Your task to perform on an android device: Go to accessibility settings Image 0: 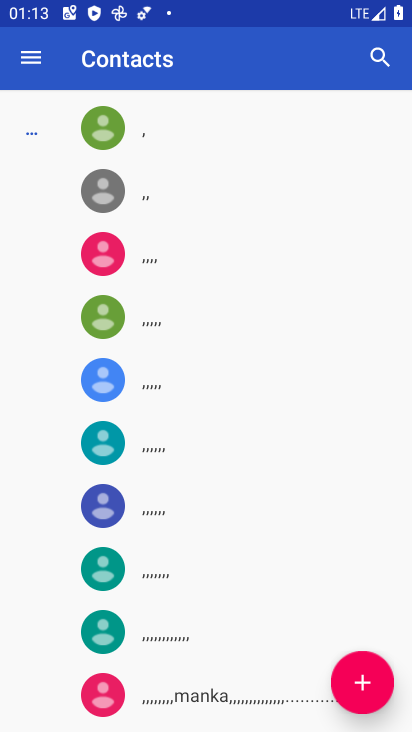
Step 0: press home button
Your task to perform on an android device: Go to accessibility settings Image 1: 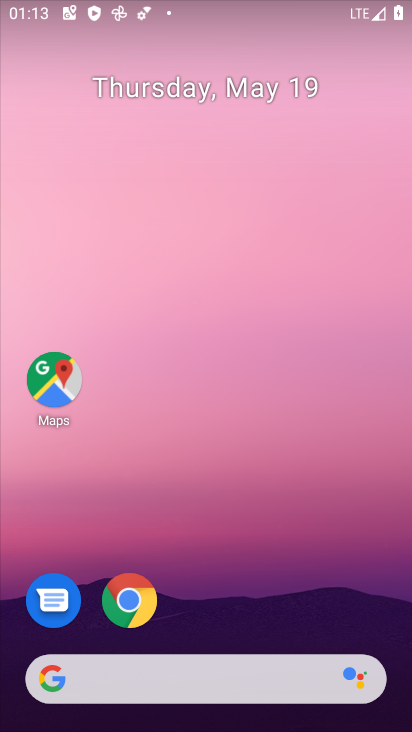
Step 1: drag from (219, 498) to (327, 72)
Your task to perform on an android device: Go to accessibility settings Image 2: 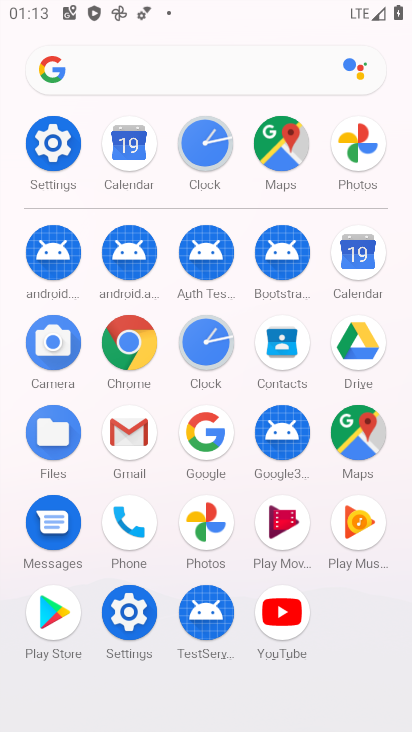
Step 2: click (50, 135)
Your task to perform on an android device: Go to accessibility settings Image 3: 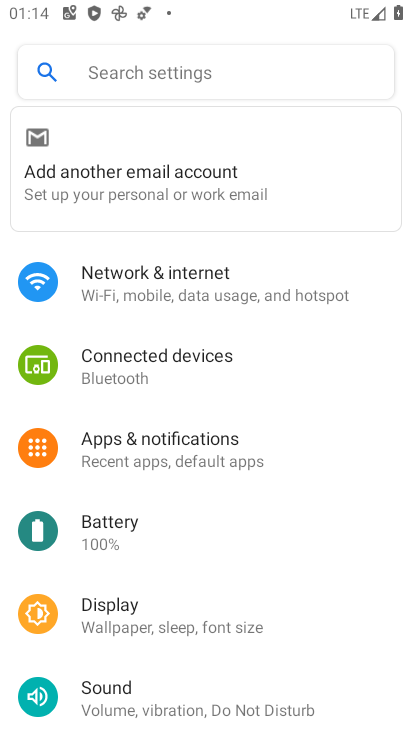
Step 3: drag from (275, 629) to (235, 264)
Your task to perform on an android device: Go to accessibility settings Image 4: 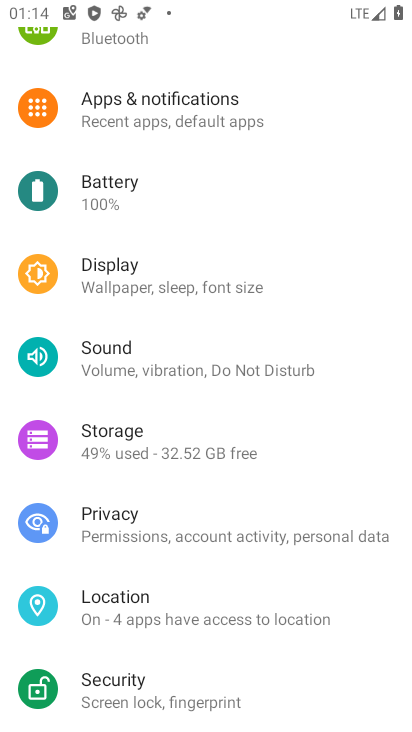
Step 4: drag from (197, 541) to (170, 256)
Your task to perform on an android device: Go to accessibility settings Image 5: 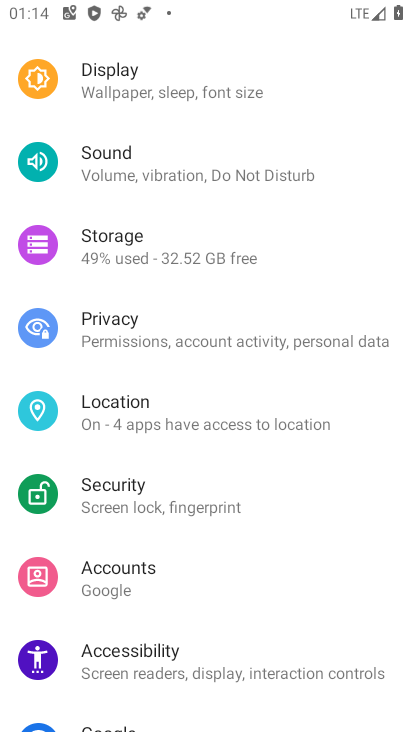
Step 5: click (152, 655)
Your task to perform on an android device: Go to accessibility settings Image 6: 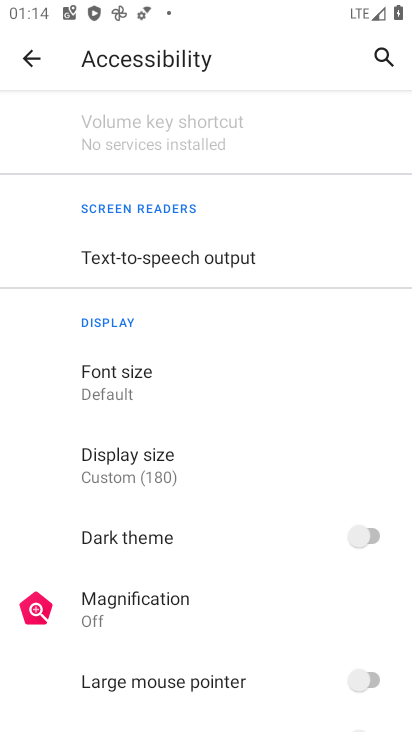
Step 6: task complete